Your task to perform on an android device: Go to ESPN.com Image 0: 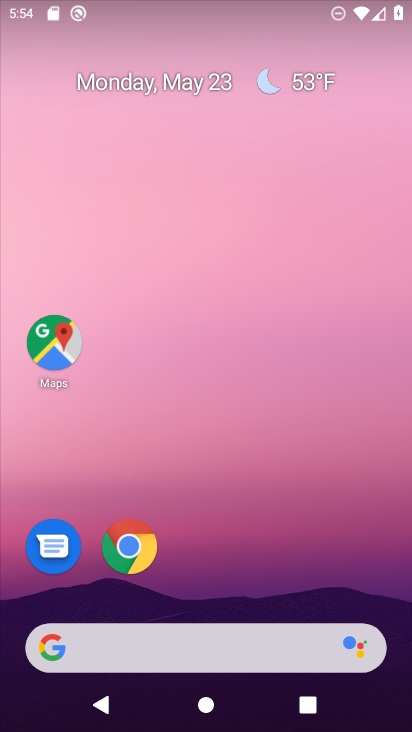
Step 0: click (128, 540)
Your task to perform on an android device: Go to ESPN.com Image 1: 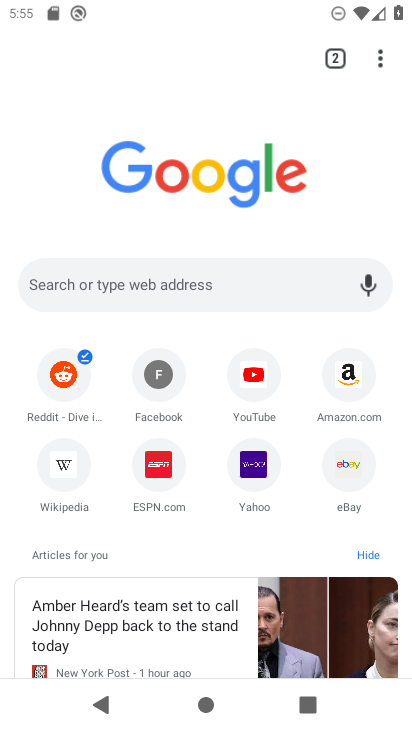
Step 1: click (164, 475)
Your task to perform on an android device: Go to ESPN.com Image 2: 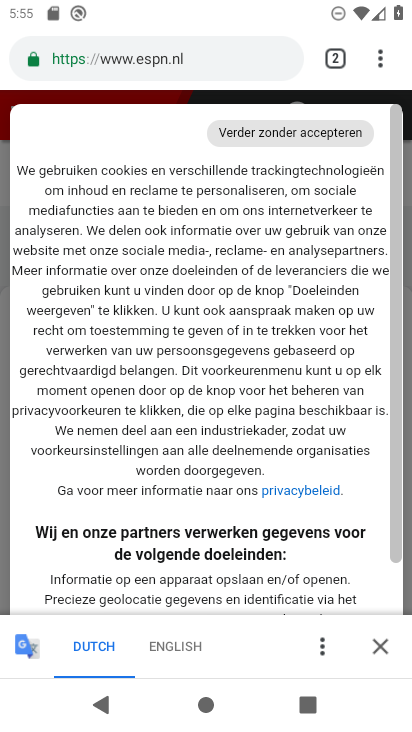
Step 2: task complete